Your task to perform on an android device: add a contact Image 0: 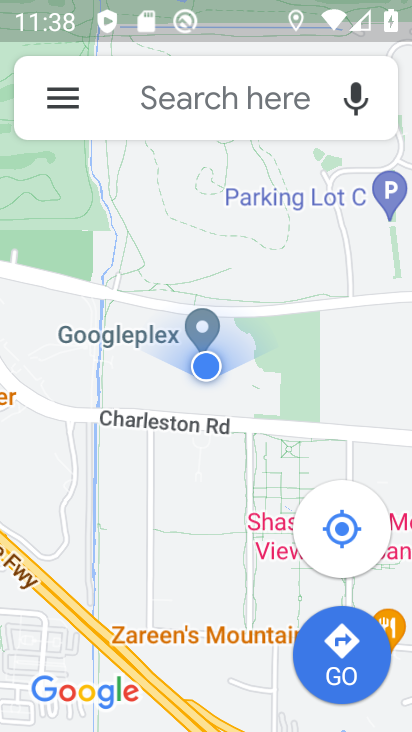
Step 0: press home button
Your task to perform on an android device: add a contact Image 1: 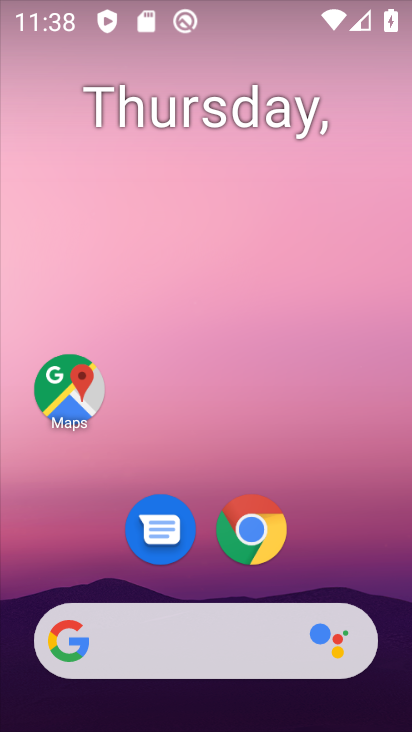
Step 1: drag from (314, 544) to (269, 151)
Your task to perform on an android device: add a contact Image 2: 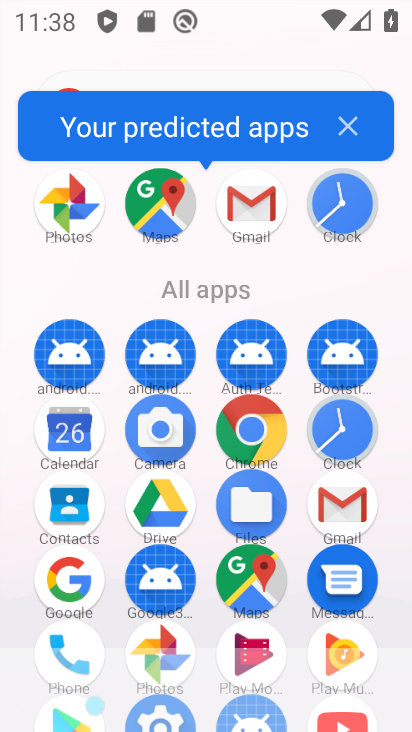
Step 2: drag from (136, 556) to (135, 252)
Your task to perform on an android device: add a contact Image 3: 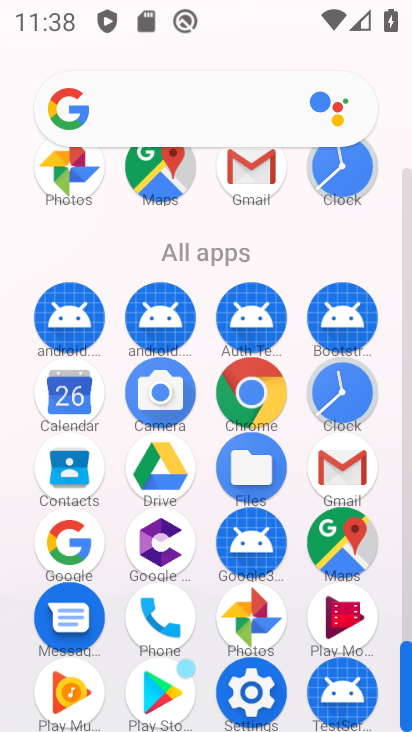
Step 3: click (86, 475)
Your task to perform on an android device: add a contact Image 4: 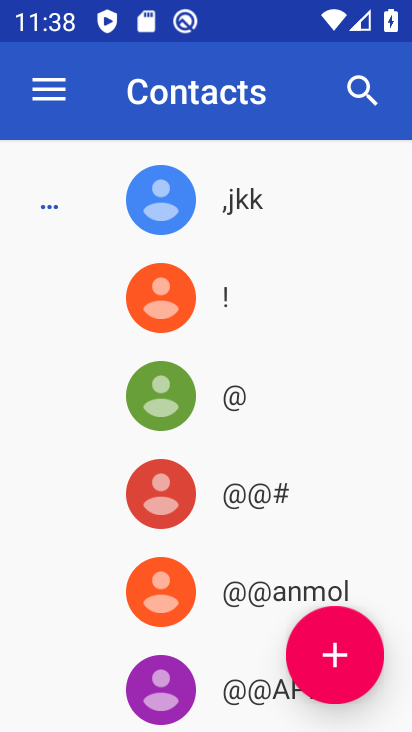
Step 4: click (330, 628)
Your task to perform on an android device: add a contact Image 5: 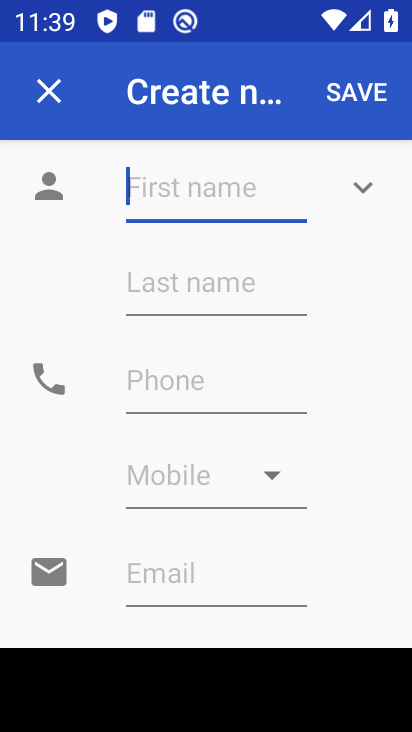
Step 5: type "yytt"
Your task to perform on an android device: add a contact Image 6: 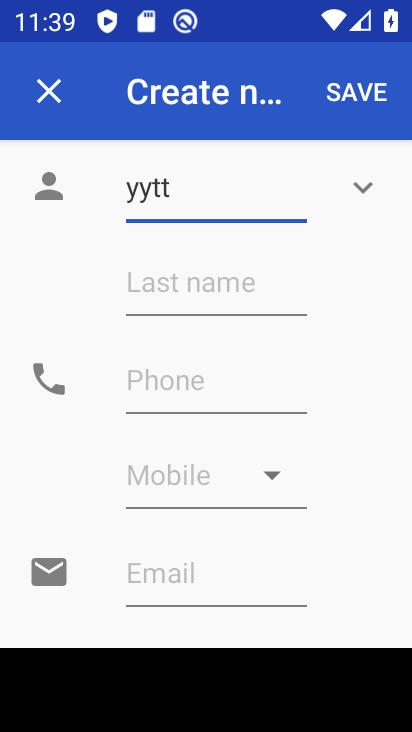
Step 6: click (263, 361)
Your task to perform on an android device: add a contact Image 7: 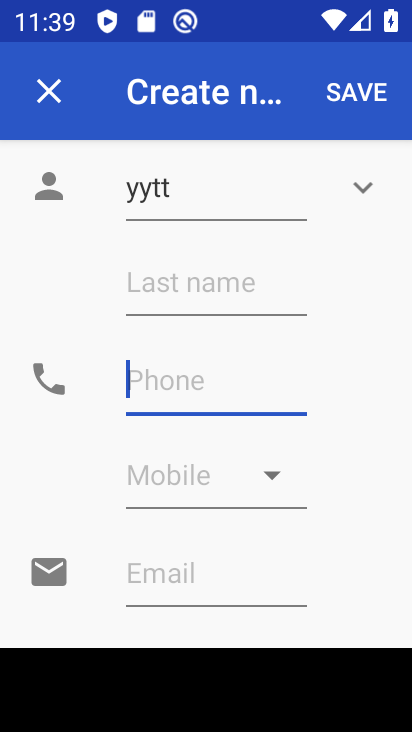
Step 7: type "9977665543"
Your task to perform on an android device: add a contact Image 8: 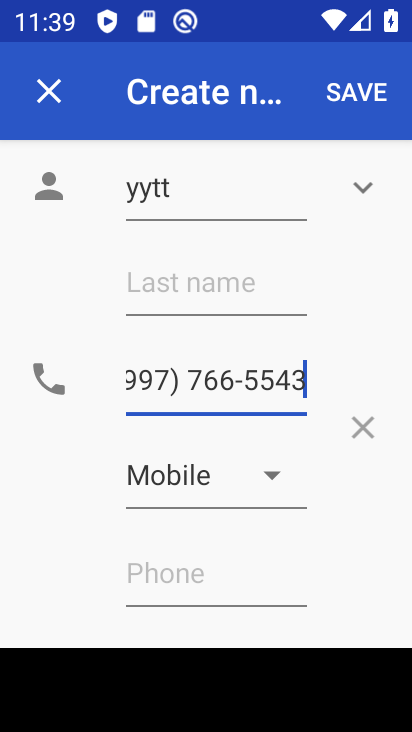
Step 8: click (378, 71)
Your task to perform on an android device: add a contact Image 9: 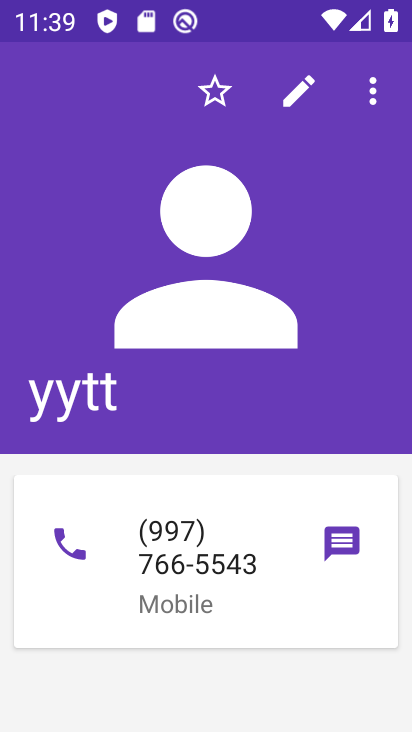
Step 9: task complete